Your task to perform on an android device: See recent photos Image 0: 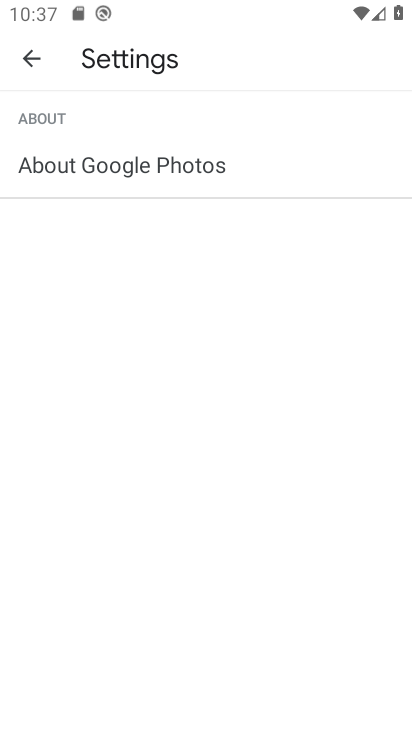
Step 0: press home button
Your task to perform on an android device: See recent photos Image 1: 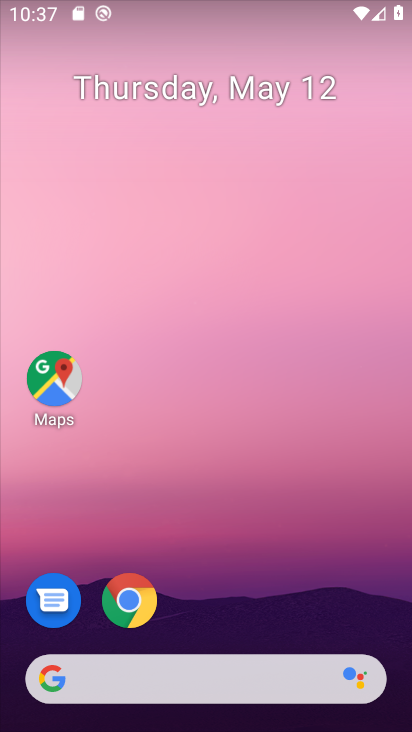
Step 1: drag from (246, 532) to (136, 104)
Your task to perform on an android device: See recent photos Image 2: 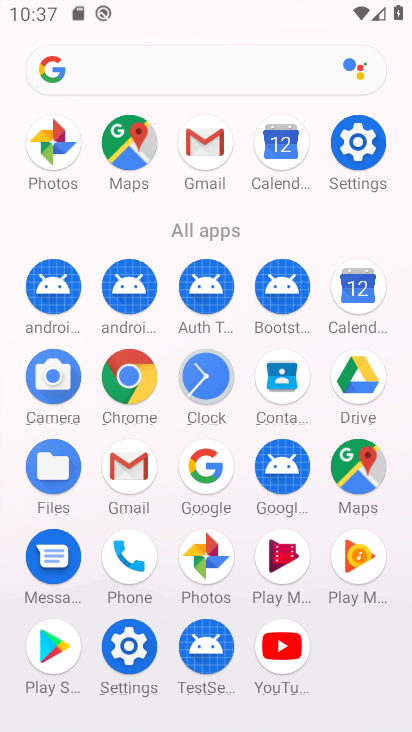
Step 2: click (207, 562)
Your task to perform on an android device: See recent photos Image 3: 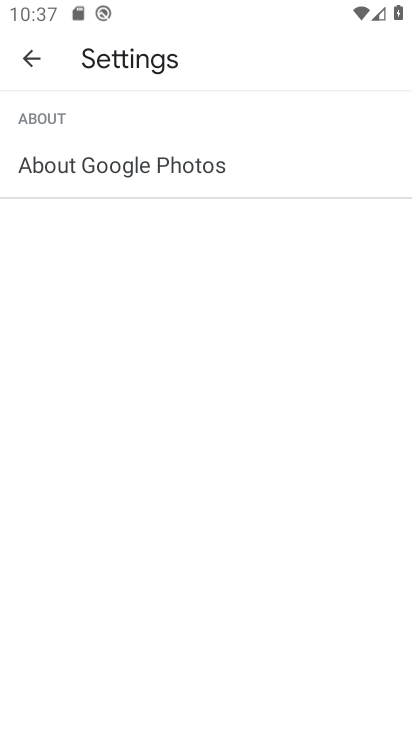
Step 3: press back button
Your task to perform on an android device: See recent photos Image 4: 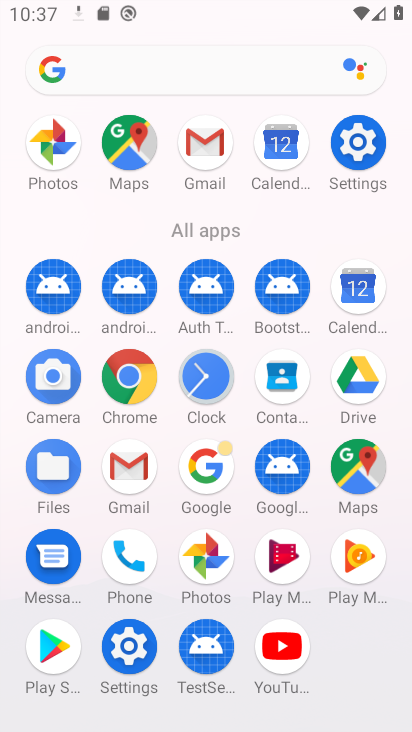
Step 4: click (199, 557)
Your task to perform on an android device: See recent photos Image 5: 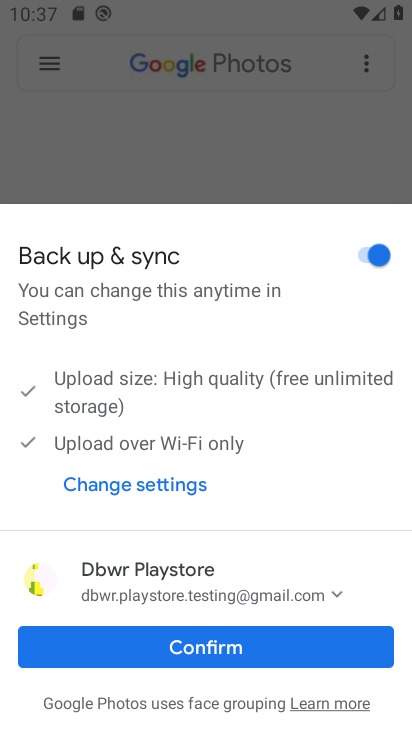
Step 5: click (185, 653)
Your task to perform on an android device: See recent photos Image 6: 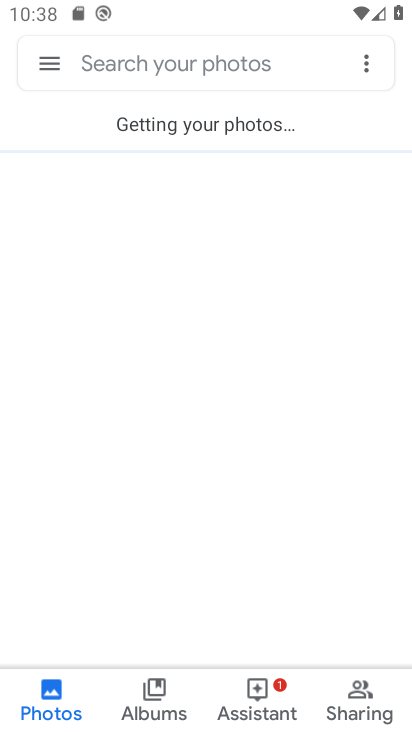
Step 6: drag from (155, 266) to (181, 207)
Your task to perform on an android device: See recent photos Image 7: 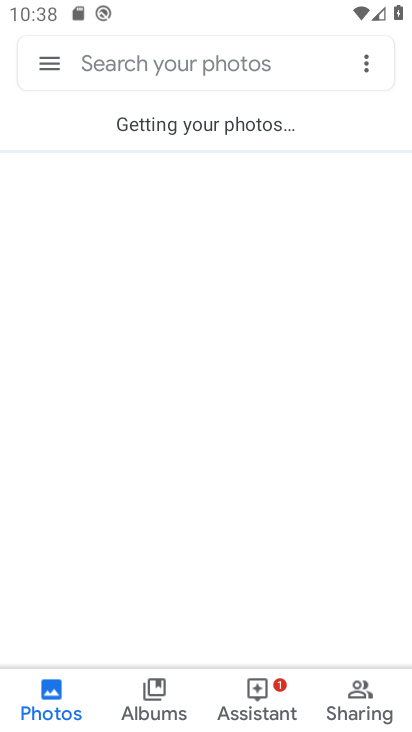
Step 7: click (181, 207)
Your task to perform on an android device: See recent photos Image 8: 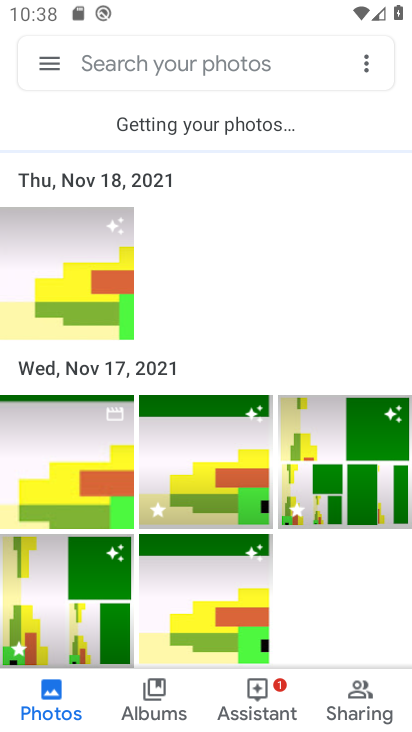
Step 8: task complete